Your task to perform on an android device: Go to Google Image 0: 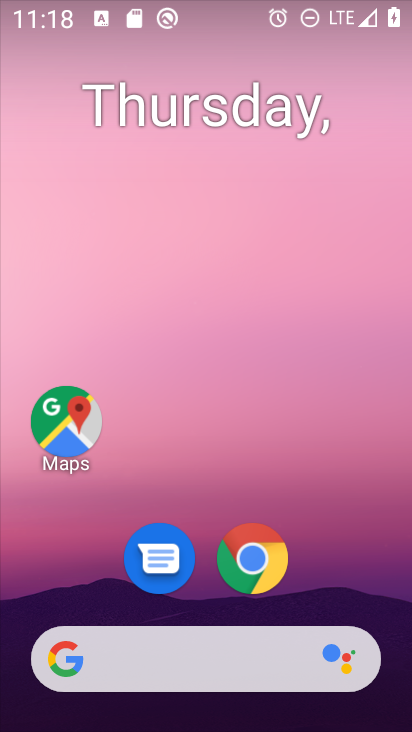
Step 0: click (246, 557)
Your task to perform on an android device: Go to Google Image 1: 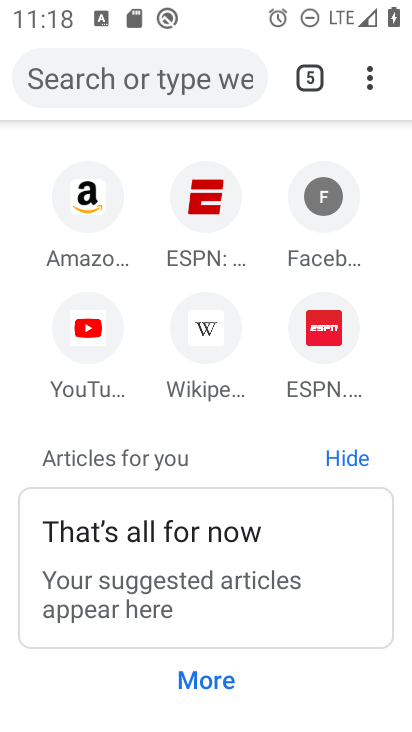
Step 1: task complete